Your task to perform on an android device: set the timer Image 0: 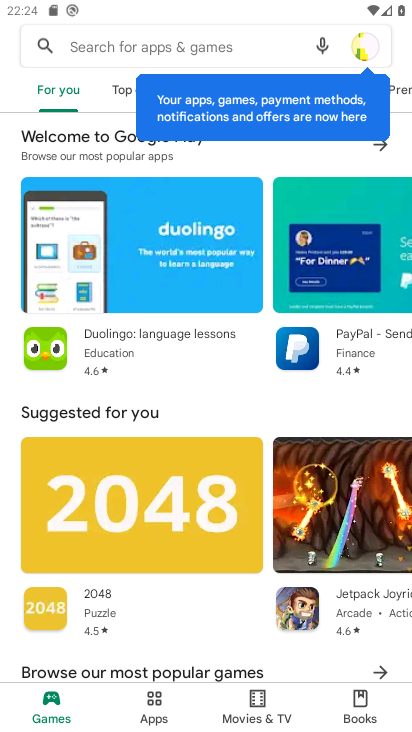
Step 0: press home button
Your task to perform on an android device: set the timer Image 1: 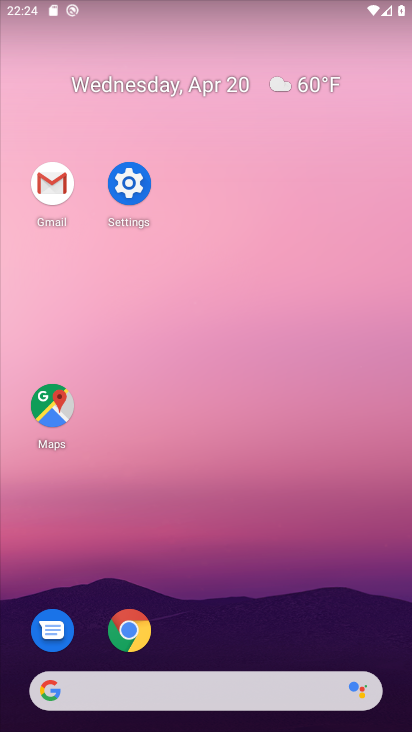
Step 1: drag from (229, 657) to (272, 210)
Your task to perform on an android device: set the timer Image 2: 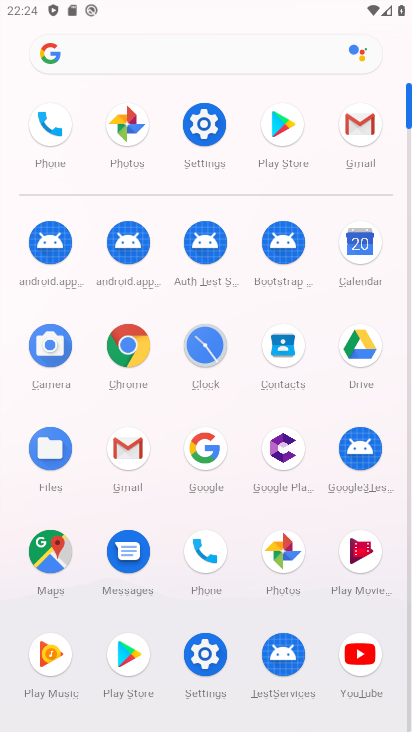
Step 2: drag from (207, 351) to (229, 208)
Your task to perform on an android device: set the timer Image 3: 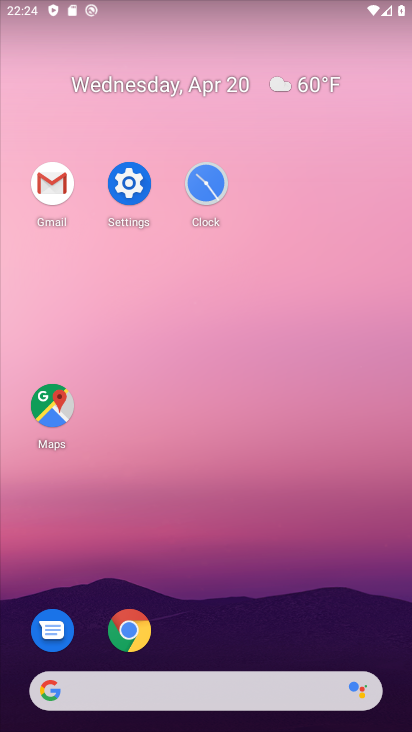
Step 3: click (208, 182)
Your task to perform on an android device: set the timer Image 4: 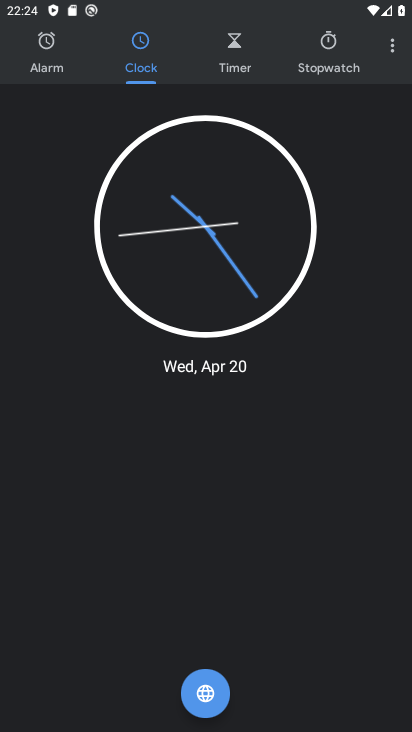
Step 4: click (233, 50)
Your task to perform on an android device: set the timer Image 5: 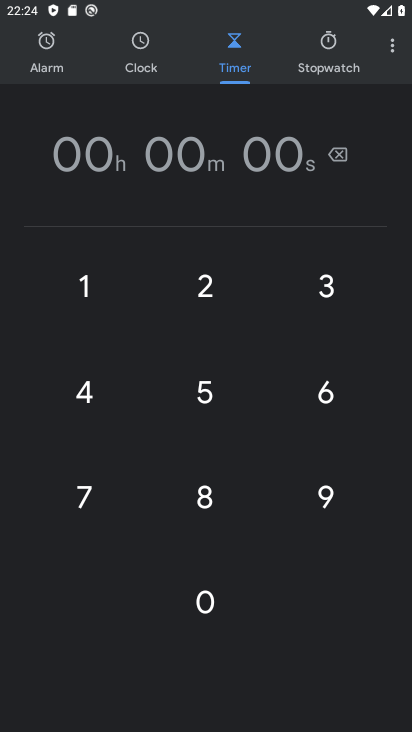
Step 5: click (210, 280)
Your task to perform on an android device: set the timer Image 6: 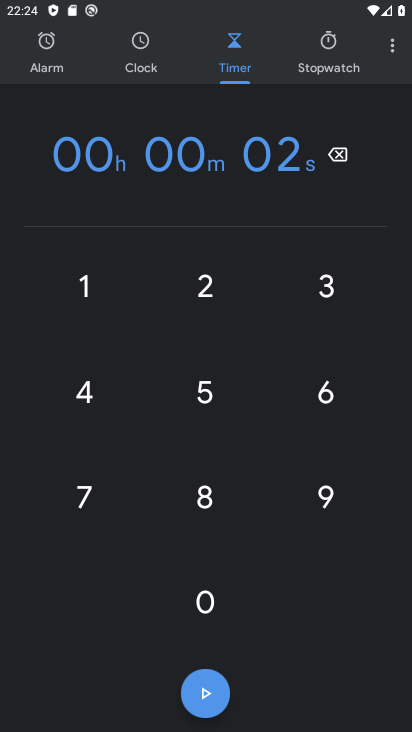
Step 6: click (210, 704)
Your task to perform on an android device: set the timer Image 7: 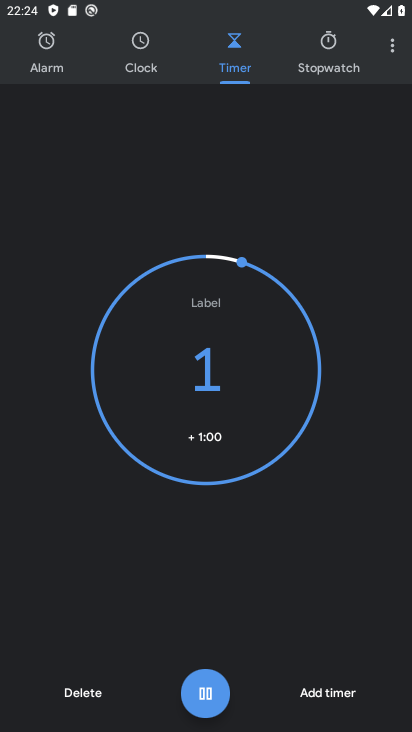
Step 7: task complete